Your task to perform on an android device: check data usage Image 0: 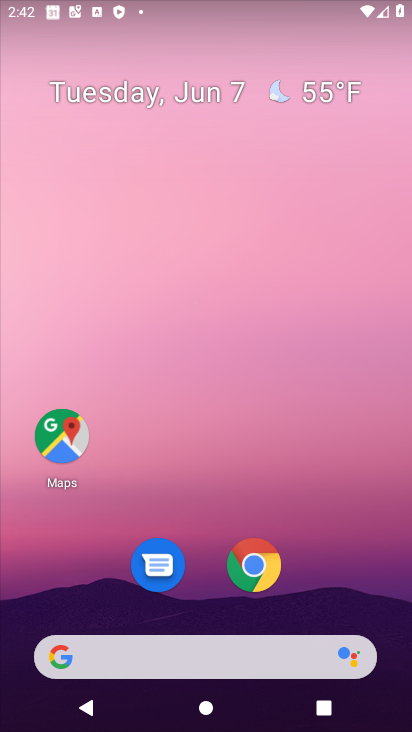
Step 0: drag from (320, 668) to (302, 50)
Your task to perform on an android device: check data usage Image 1: 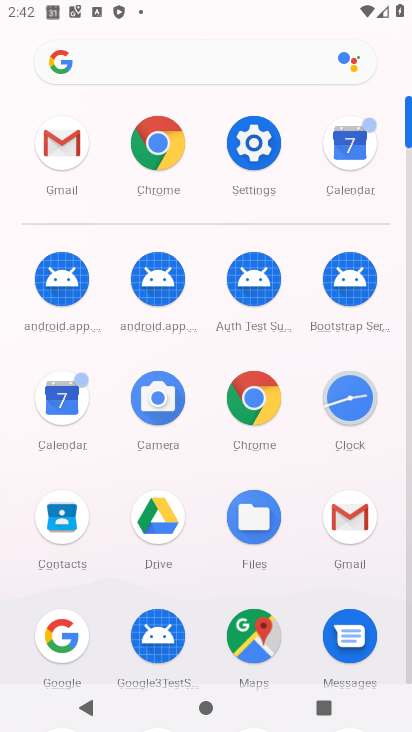
Step 1: click (261, 145)
Your task to perform on an android device: check data usage Image 2: 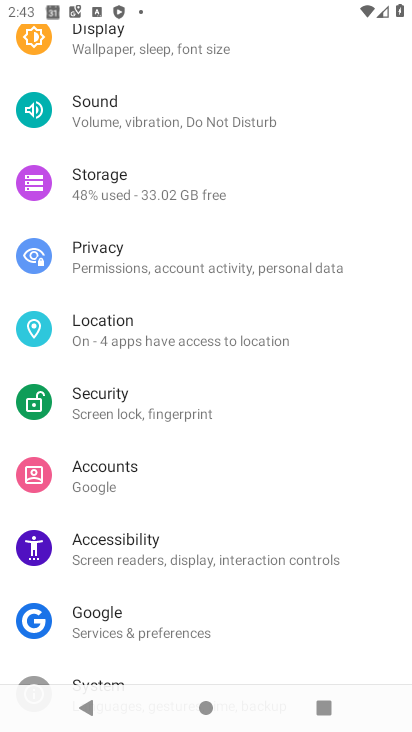
Step 2: press home button
Your task to perform on an android device: check data usage Image 3: 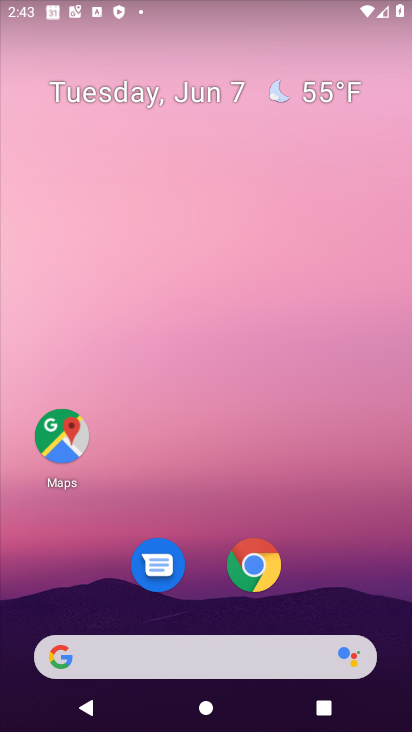
Step 3: drag from (266, 643) to (328, 104)
Your task to perform on an android device: check data usage Image 4: 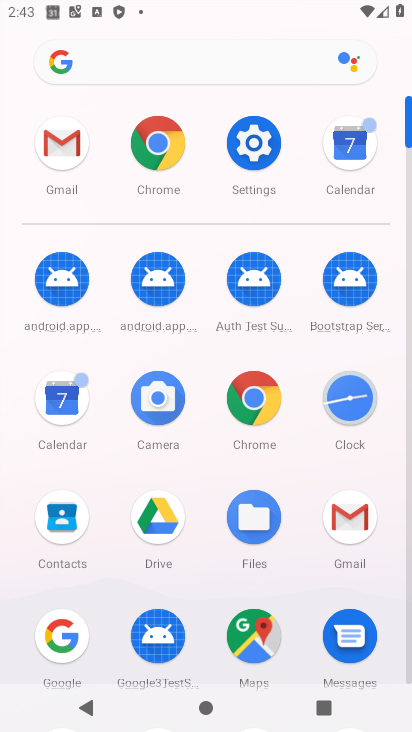
Step 4: click (248, 144)
Your task to perform on an android device: check data usage Image 5: 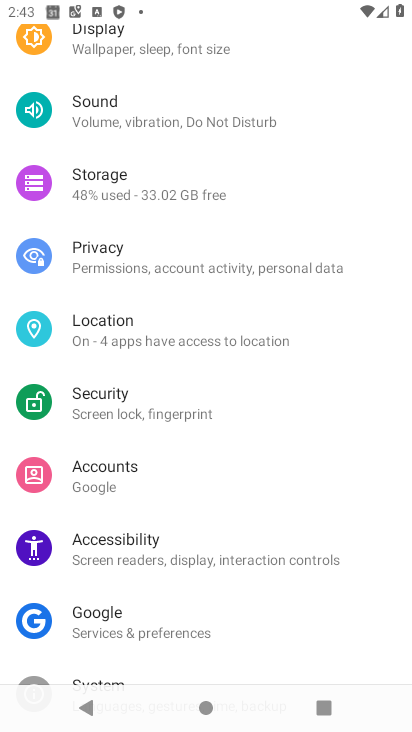
Step 5: drag from (160, 142) to (203, 700)
Your task to perform on an android device: check data usage Image 6: 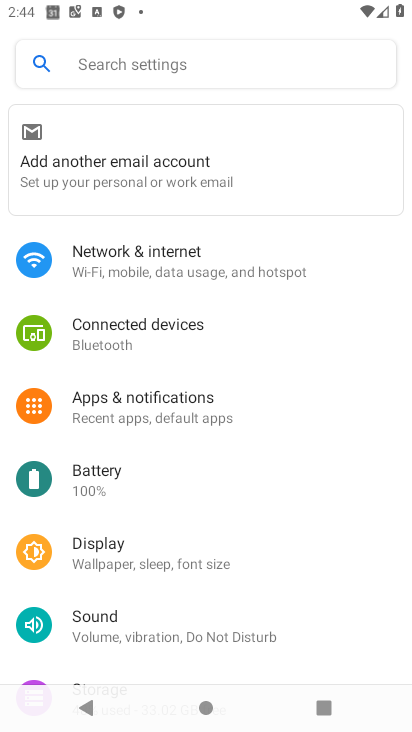
Step 6: click (182, 265)
Your task to perform on an android device: check data usage Image 7: 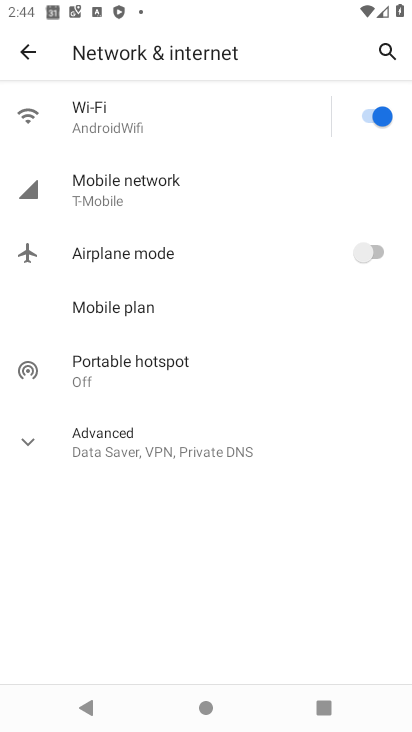
Step 7: click (139, 188)
Your task to perform on an android device: check data usage Image 8: 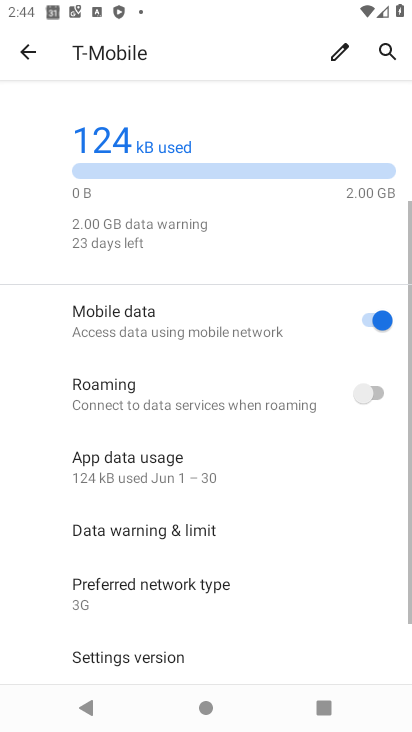
Step 8: task complete